Your task to perform on an android device: Open display settings Image 0: 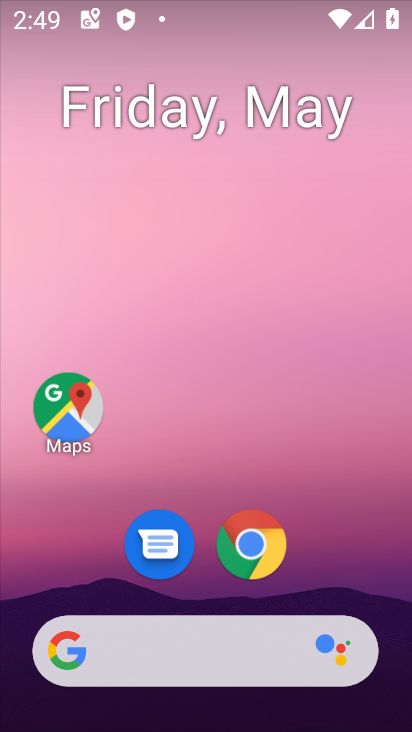
Step 0: drag from (204, 579) to (261, 187)
Your task to perform on an android device: Open display settings Image 1: 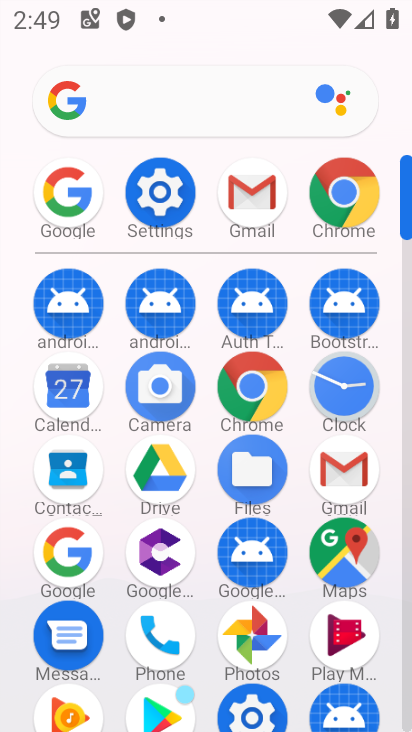
Step 1: click (174, 195)
Your task to perform on an android device: Open display settings Image 2: 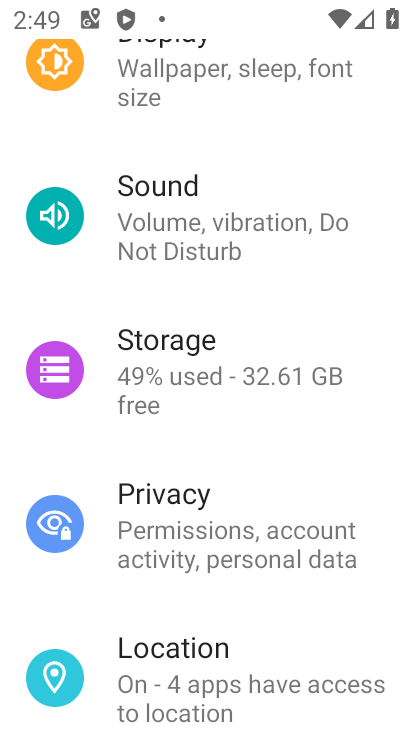
Step 2: drag from (253, 217) to (264, 527)
Your task to perform on an android device: Open display settings Image 3: 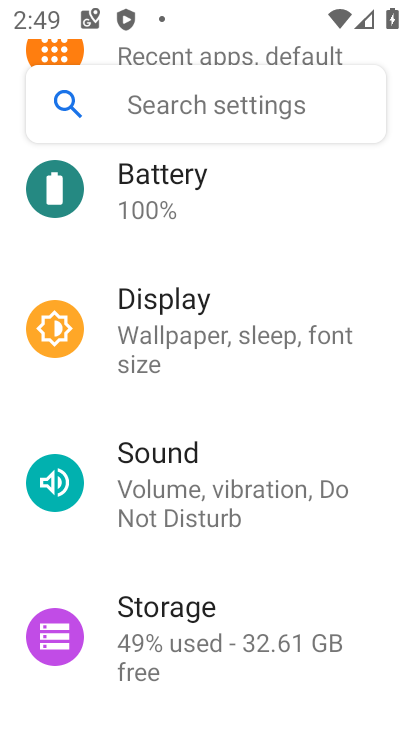
Step 3: click (218, 323)
Your task to perform on an android device: Open display settings Image 4: 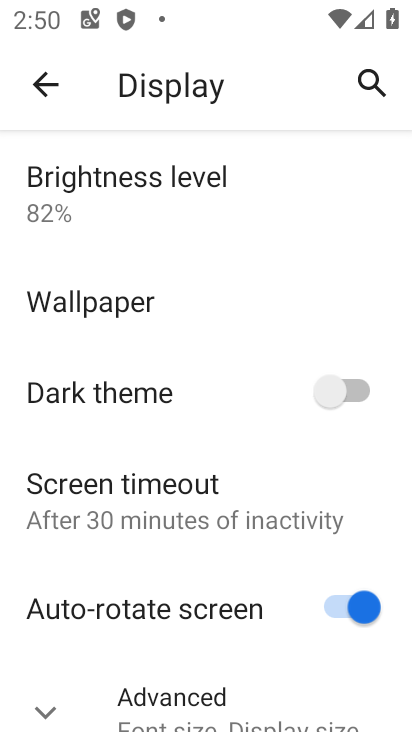
Step 4: task complete